Your task to perform on an android device: Go to Amazon Image 0: 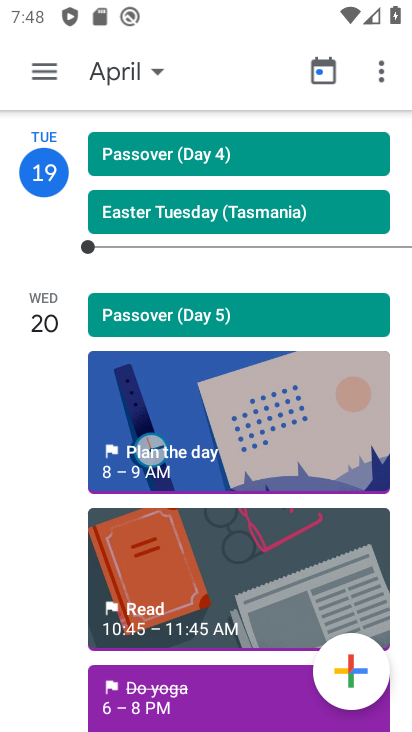
Step 0: press home button
Your task to perform on an android device: Go to Amazon Image 1: 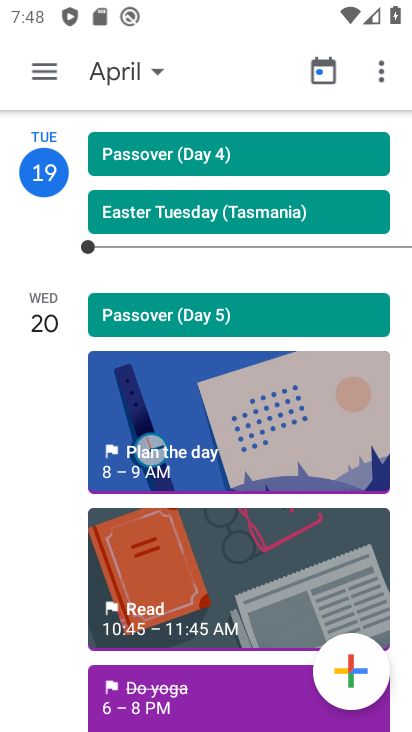
Step 1: click (404, 492)
Your task to perform on an android device: Go to Amazon Image 2: 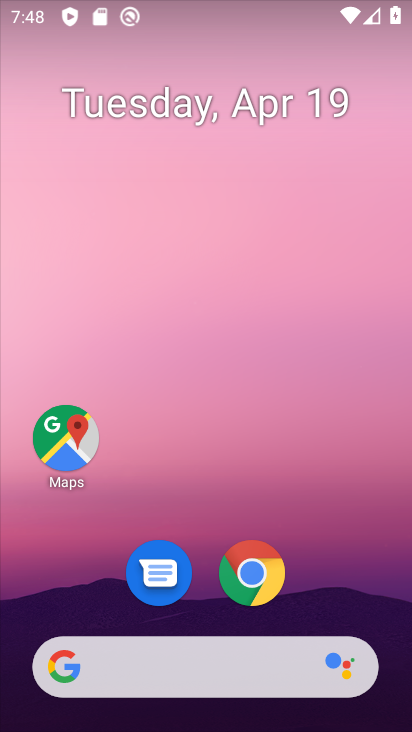
Step 2: drag from (354, 590) to (264, 126)
Your task to perform on an android device: Go to Amazon Image 3: 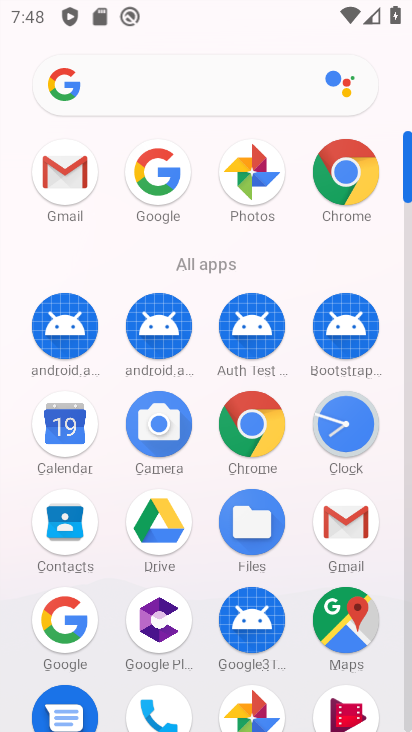
Step 3: click (209, 584)
Your task to perform on an android device: Go to Amazon Image 4: 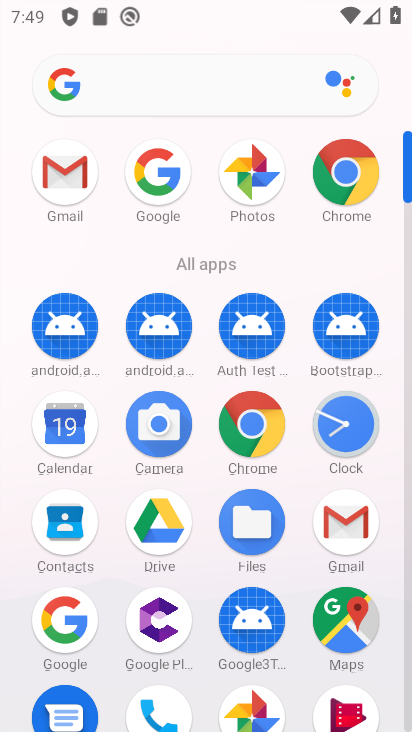
Step 4: click (263, 430)
Your task to perform on an android device: Go to Amazon Image 5: 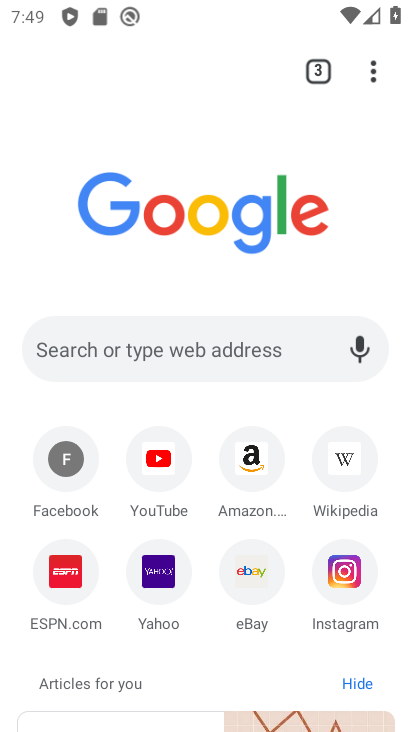
Step 5: click (256, 456)
Your task to perform on an android device: Go to Amazon Image 6: 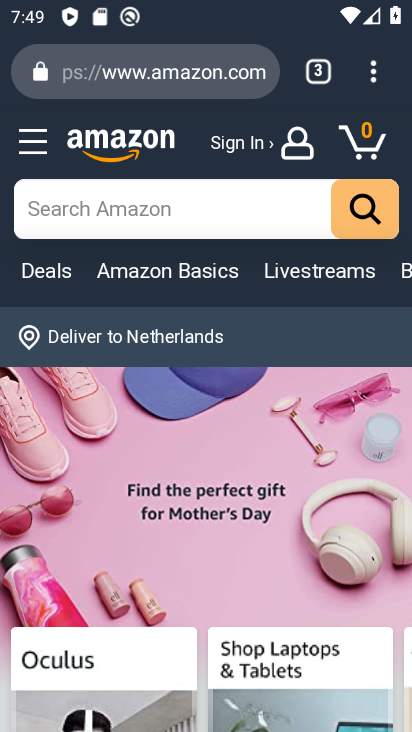
Step 6: task complete